Your task to perform on an android device: turn on data saver in the chrome app Image 0: 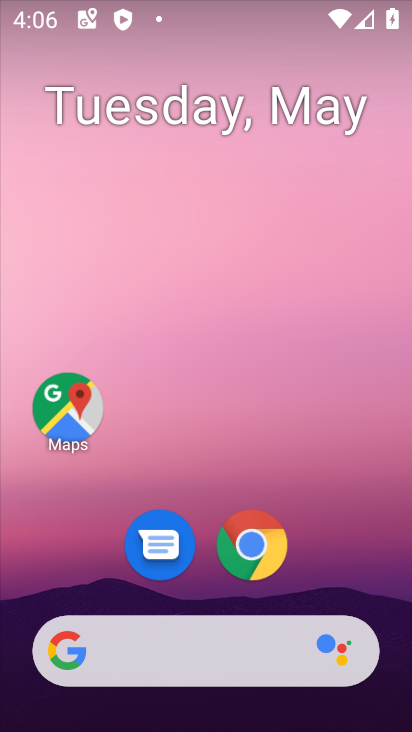
Step 0: click (252, 542)
Your task to perform on an android device: turn on data saver in the chrome app Image 1: 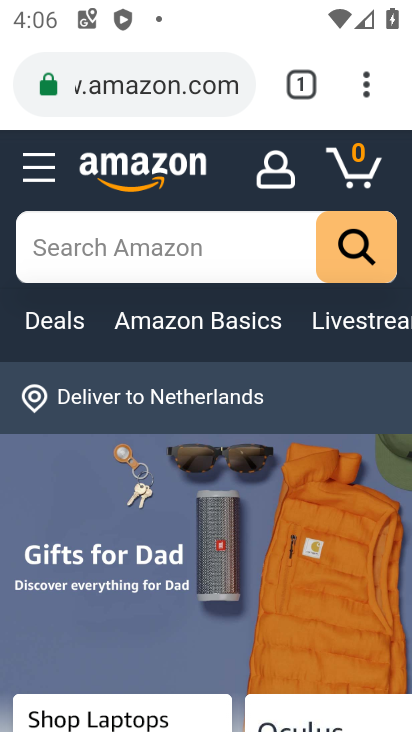
Step 1: click (367, 84)
Your task to perform on an android device: turn on data saver in the chrome app Image 2: 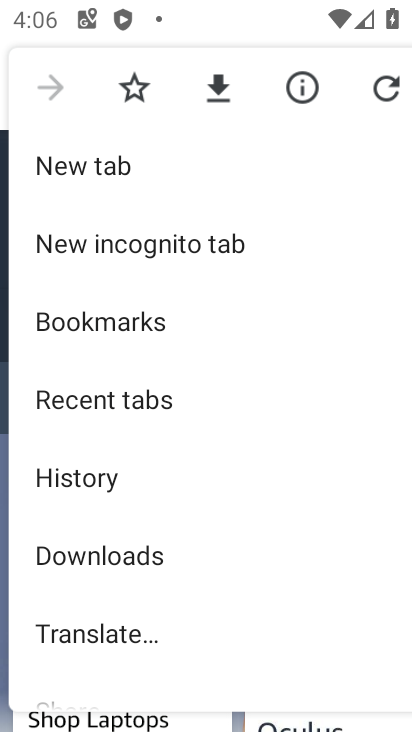
Step 2: drag from (188, 492) to (218, 360)
Your task to perform on an android device: turn on data saver in the chrome app Image 3: 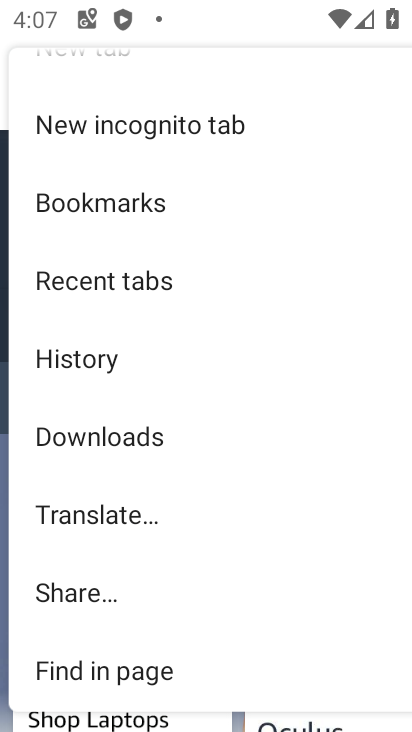
Step 3: drag from (139, 544) to (218, 423)
Your task to perform on an android device: turn on data saver in the chrome app Image 4: 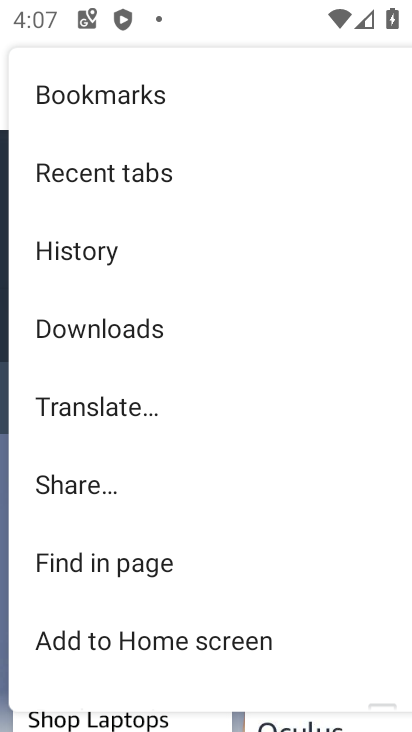
Step 4: drag from (120, 610) to (205, 465)
Your task to perform on an android device: turn on data saver in the chrome app Image 5: 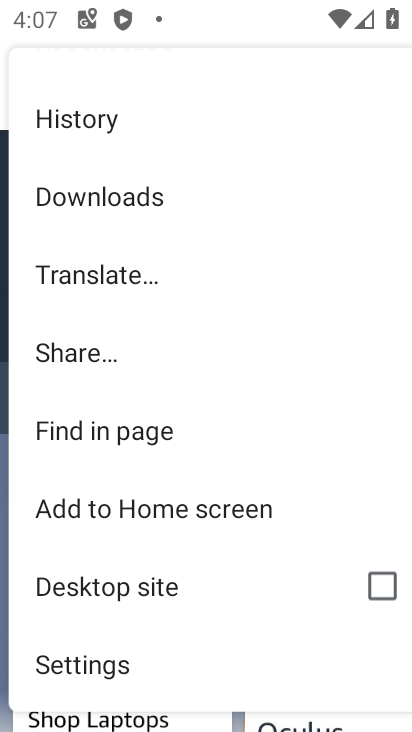
Step 5: drag from (116, 565) to (234, 424)
Your task to perform on an android device: turn on data saver in the chrome app Image 6: 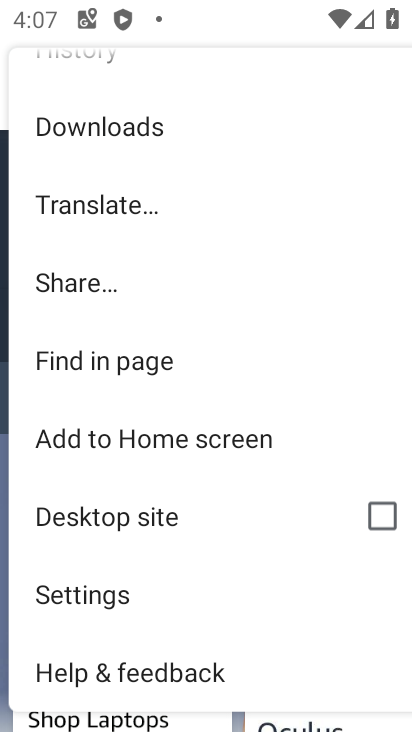
Step 6: click (98, 593)
Your task to perform on an android device: turn on data saver in the chrome app Image 7: 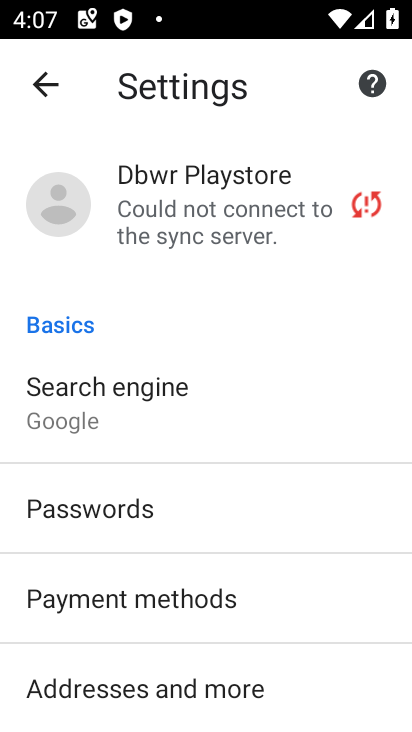
Step 7: drag from (116, 625) to (213, 468)
Your task to perform on an android device: turn on data saver in the chrome app Image 8: 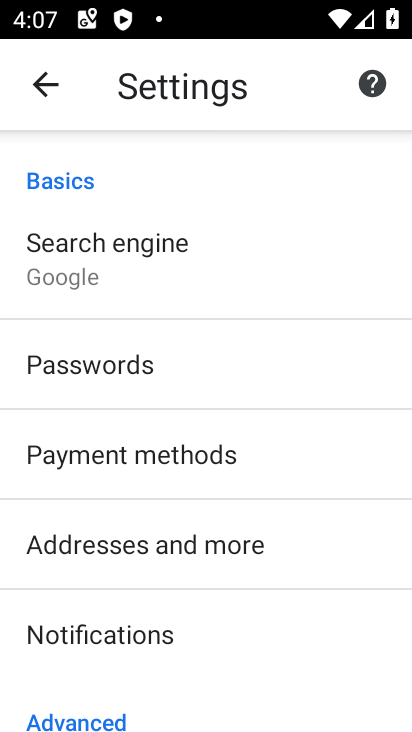
Step 8: drag from (116, 659) to (207, 480)
Your task to perform on an android device: turn on data saver in the chrome app Image 9: 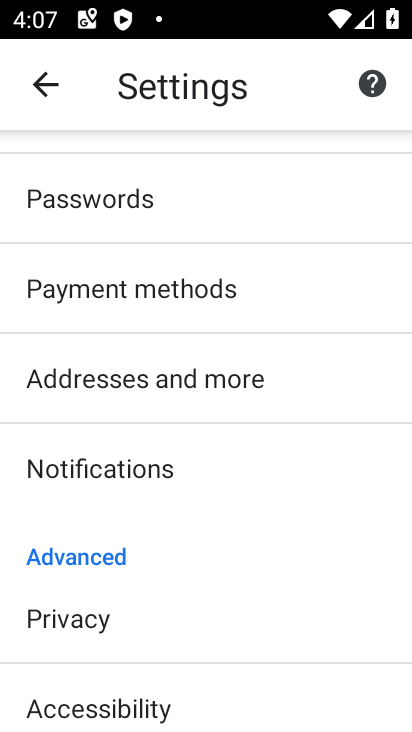
Step 9: drag from (148, 602) to (209, 428)
Your task to perform on an android device: turn on data saver in the chrome app Image 10: 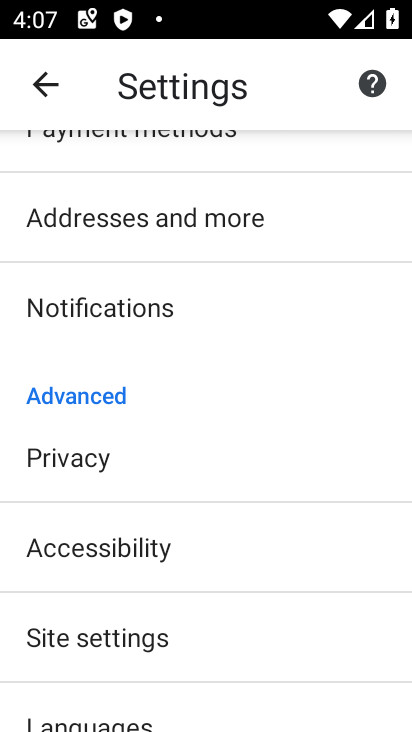
Step 10: drag from (123, 581) to (194, 424)
Your task to perform on an android device: turn on data saver in the chrome app Image 11: 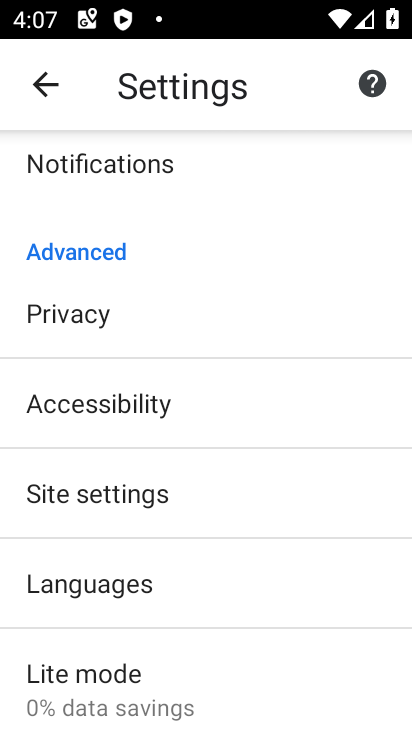
Step 11: drag from (160, 592) to (218, 486)
Your task to perform on an android device: turn on data saver in the chrome app Image 12: 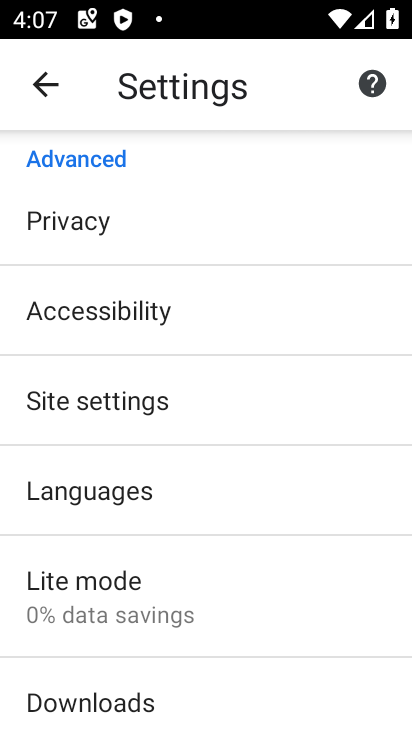
Step 12: click (126, 599)
Your task to perform on an android device: turn on data saver in the chrome app Image 13: 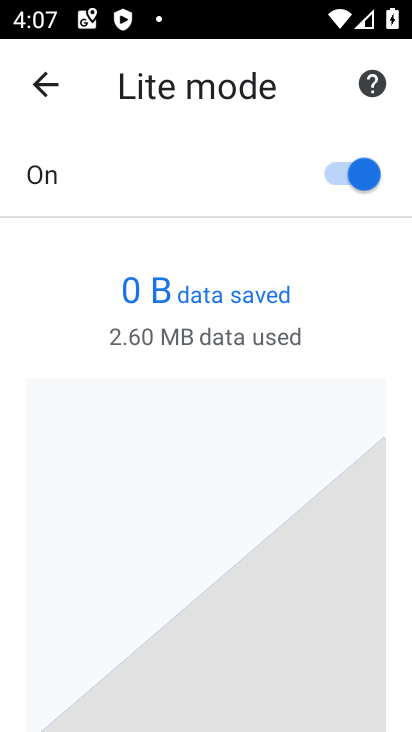
Step 13: task complete